Your task to perform on an android device: delete the emails in spam in the gmail app Image 0: 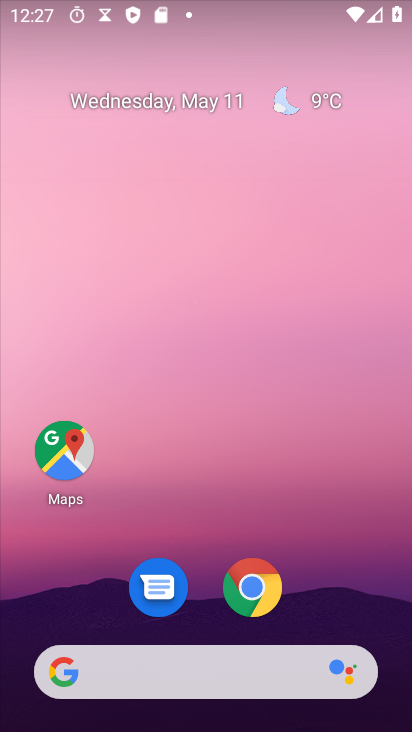
Step 0: drag from (368, 612) to (229, 90)
Your task to perform on an android device: delete the emails in spam in the gmail app Image 1: 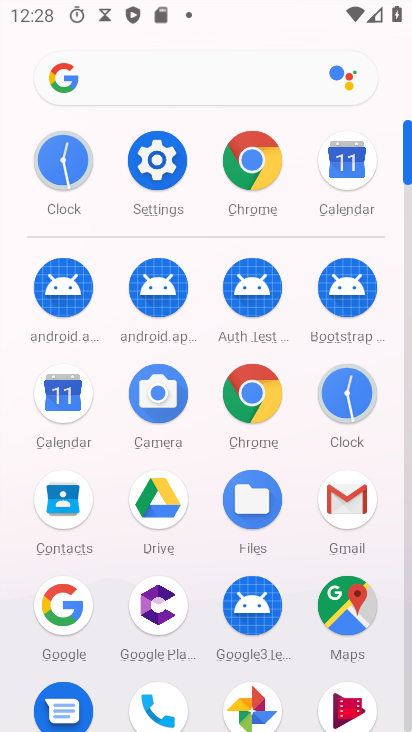
Step 1: click (338, 492)
Your task to perform on an android device: delete the emails in spam in the gmail app Image 2: 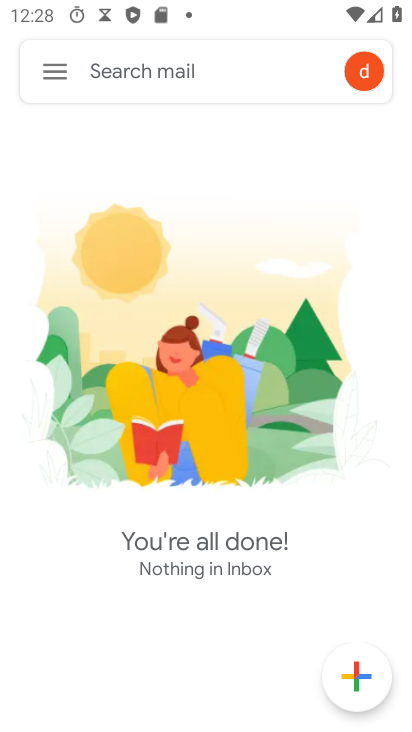
Step 2: press back button
Your task to perform on an android device: delete the emails in spam in the gmail app Image 3: 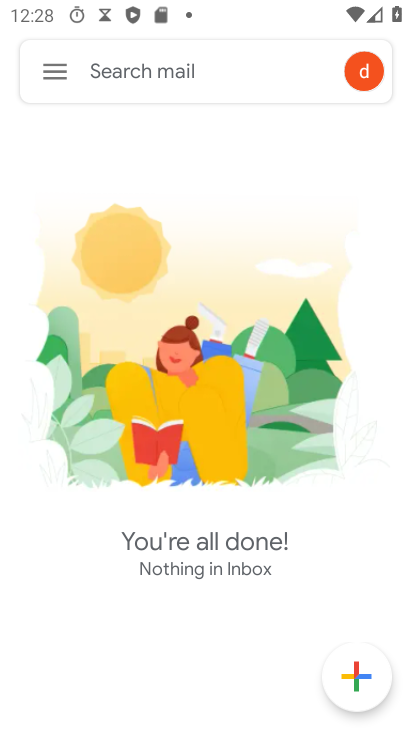
Step 3: press back button
Your task to perform on an android device: delete the emails in spam in the gmail app Image 4: 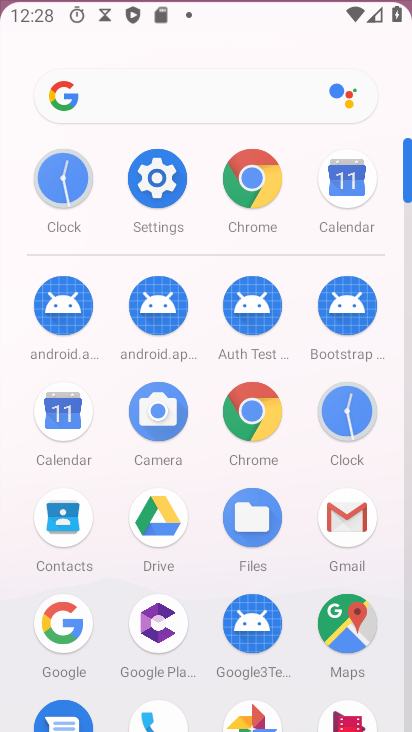
Step 4: press back button
Your task to perform on an android device: delete the emails in spam in the gmail app Image 5: 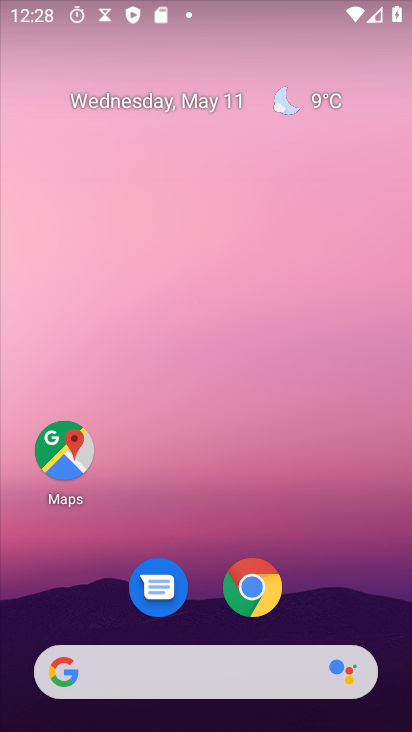
Step 5: drag from (369, 641) to (224, 67)
Your task to perform on an android device: delete the emails in spam in the gmail app Image 6: 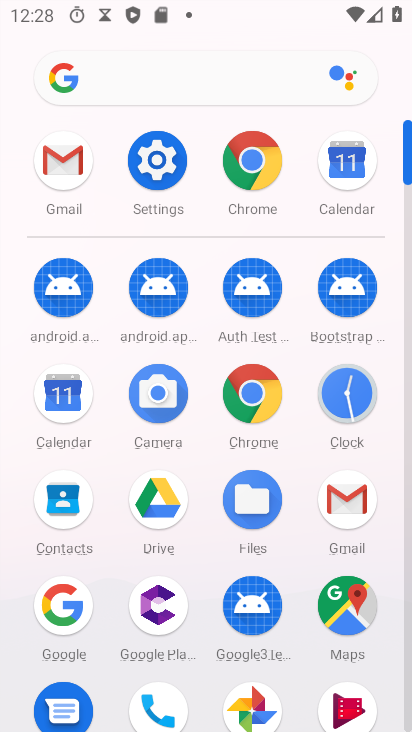
Step 6: click (333, 495)
Your task to perform on an android device: delete the emails in spam in the gmail app Image 7: 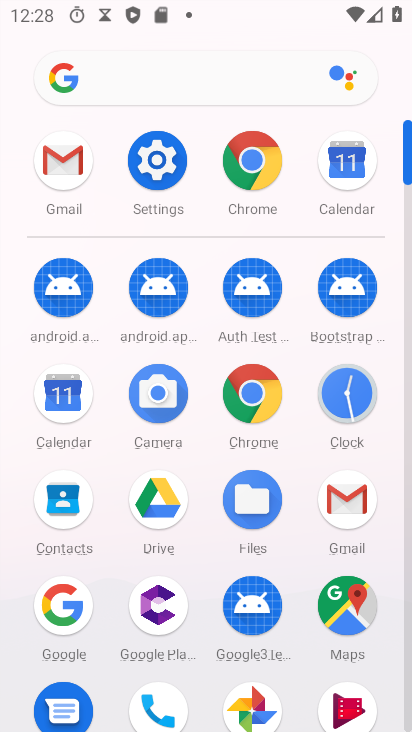
Step 7: click (333, 495)
Your task to perform on an android device: delete the emails in spam in the gmail app Image 8: 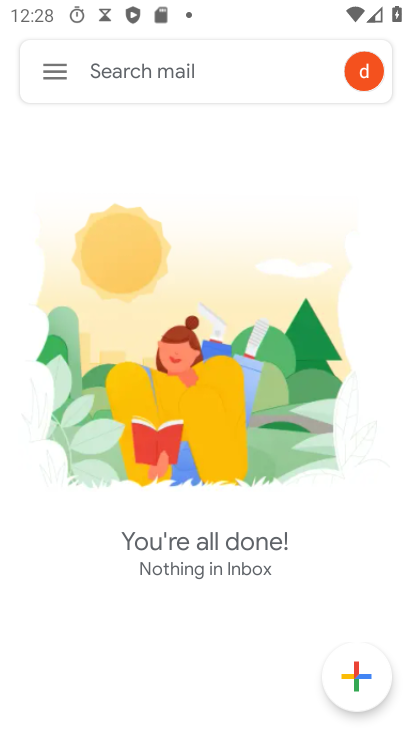
Step 8: click (62, 76)
Your task to perform on an android device: delete the emails in spam in the gmail app Image 9: 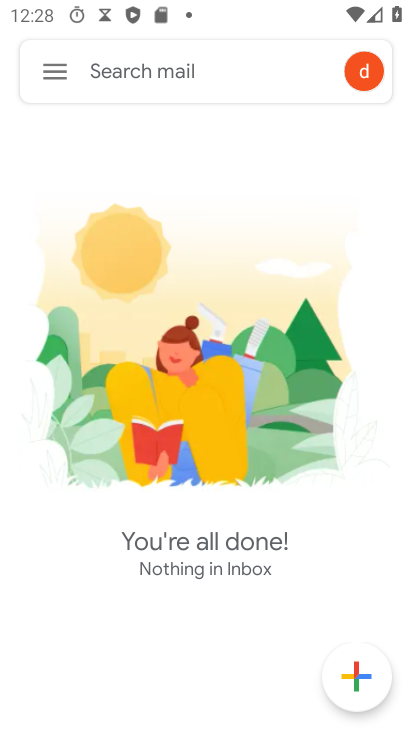
Step 9: click (62, 76)
Your task to perform on an android device: delete the emails in spam in the gmail app Image 10: 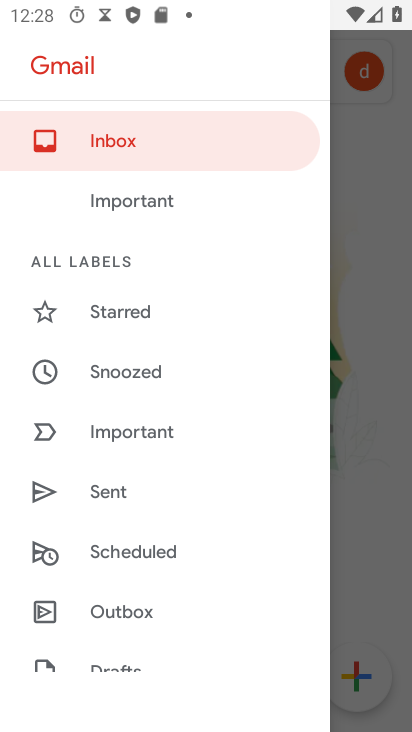
Step 10: drag from (145, 573) to (105, 256)
Your task to perform on an android device: delete the emails in spam in the gmail app Image 11: 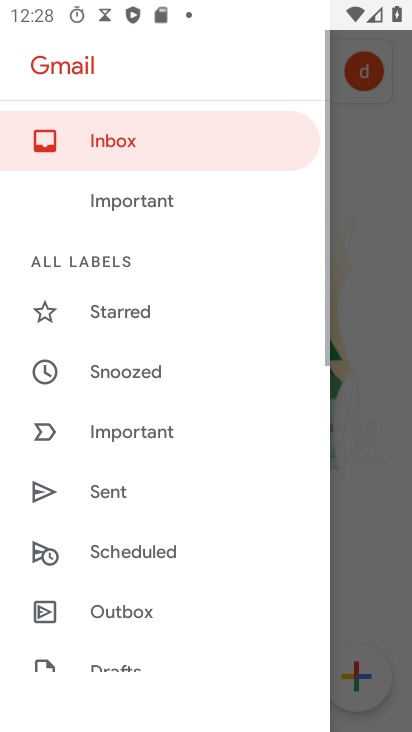
Step 11: drag from (150, 497) to (124, 249)
Your task to perform on an android device: delete the emails in spam in the gmail app Image 12: 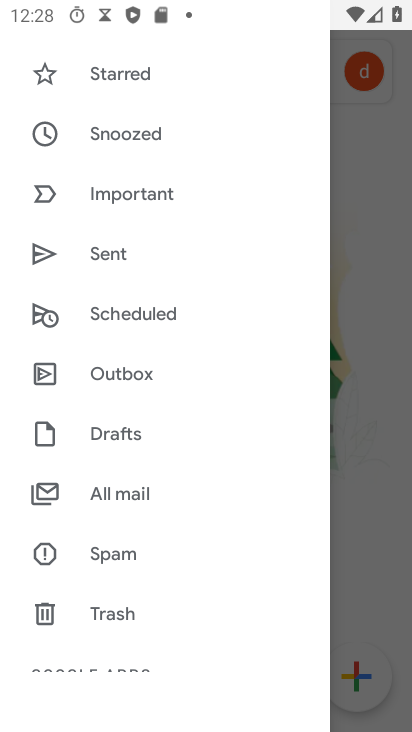
Step 12: click (111, 489)
Your task to perform on an android device: delete the emails in spam in the gmail app Image 13: 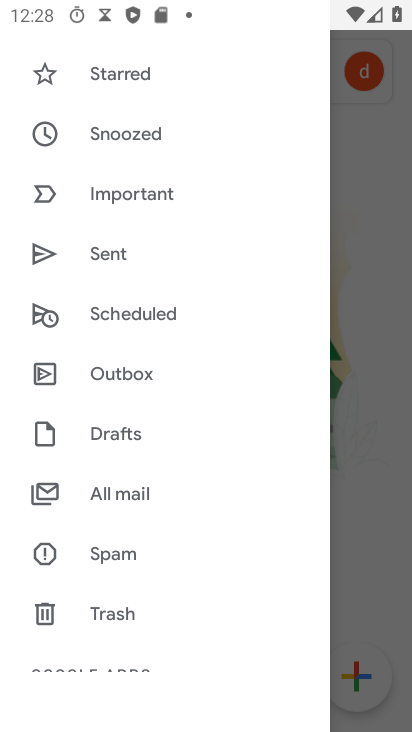
Step 13: click (112, 489)
Your task to perform on an android device: delete the emails in spam in the gmail app Image 14: 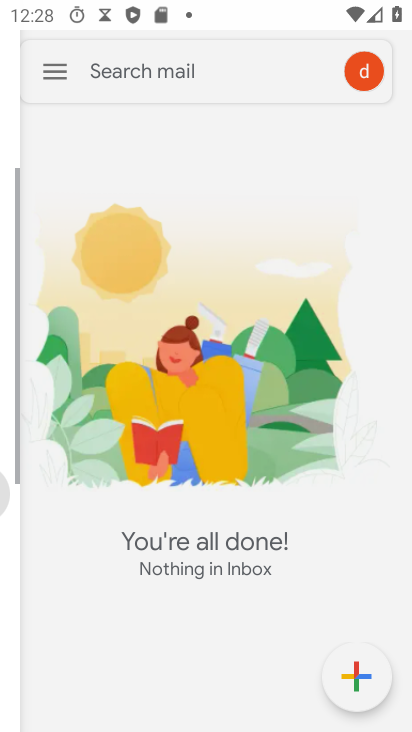
Step 14: click (112, 489)
Your task to perform on an android device: delete the emails in spam in the gmail app Image 15: 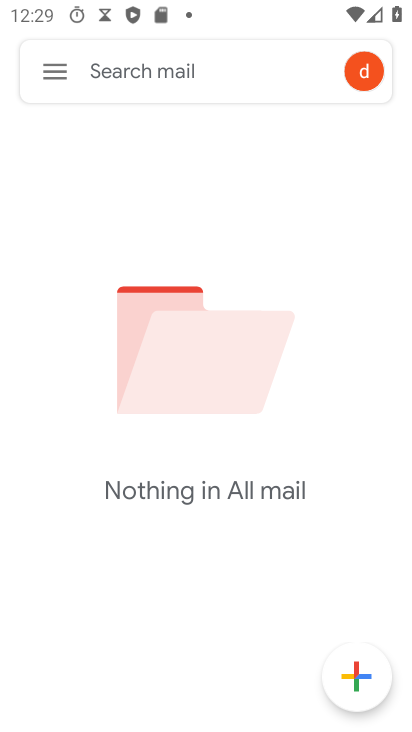
Step 15: task complete